Your task to perform on an android device: Go to network settings Image 0: 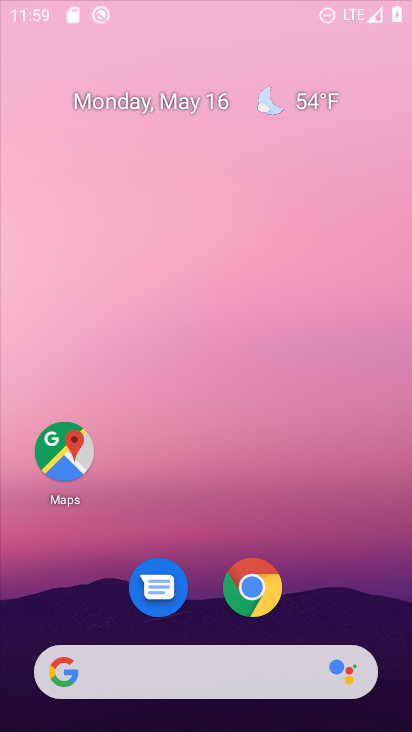
Step 0: click (262, 478)
Your task to perform on an android device: Go to network settings Image 1: 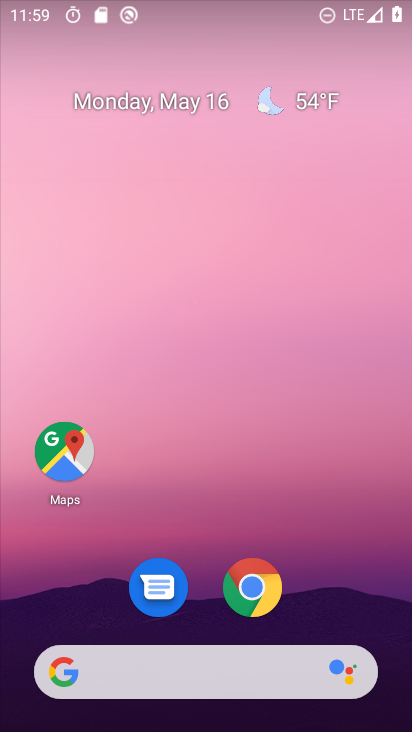
Step 1: drag from (204, 630) to (207, 276)
Your task to perform on an android device: Go to network settings Image 2: 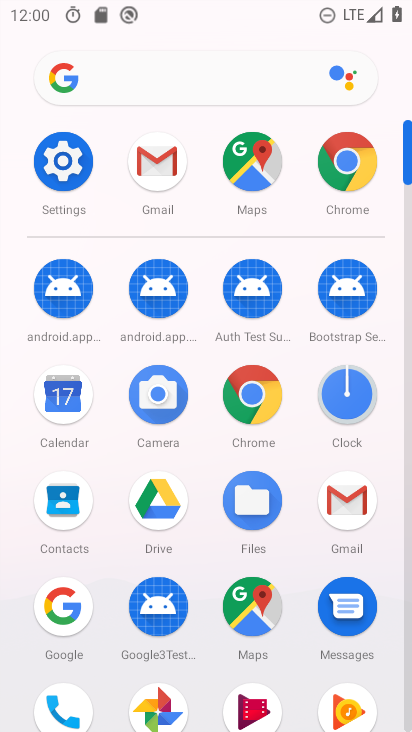
Step 2: drag from (200, 570) to (174, 221)
Your task to perform on an android device: Go to network settings Image 3: 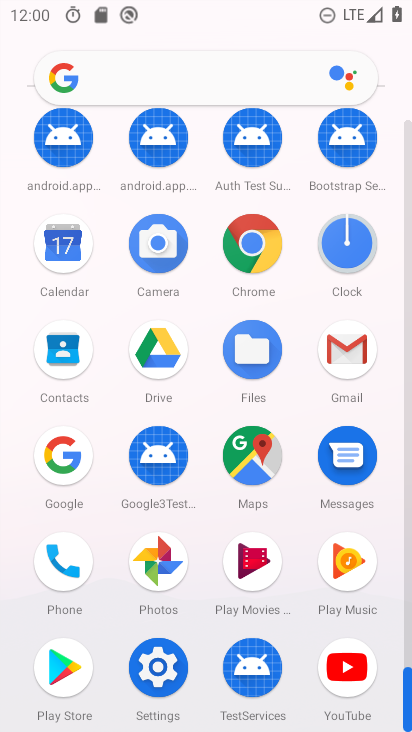
Step 3: click (159, 666)
Your task to perform on an android device: Go to network settings Image 4: 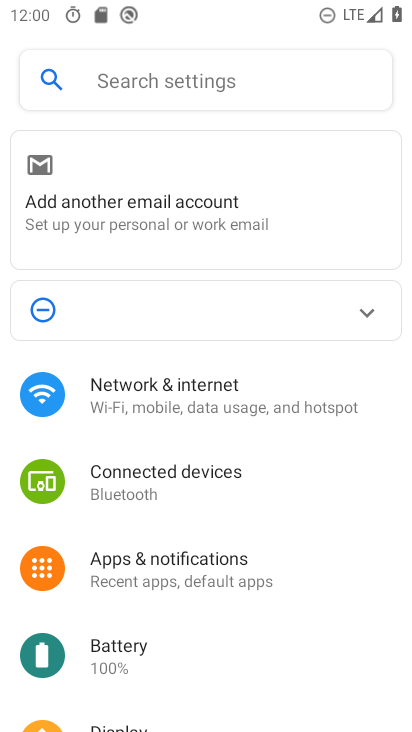
Step 4: click (210, 391)
Your task to perform on an android device: Go to network settings Image 5: 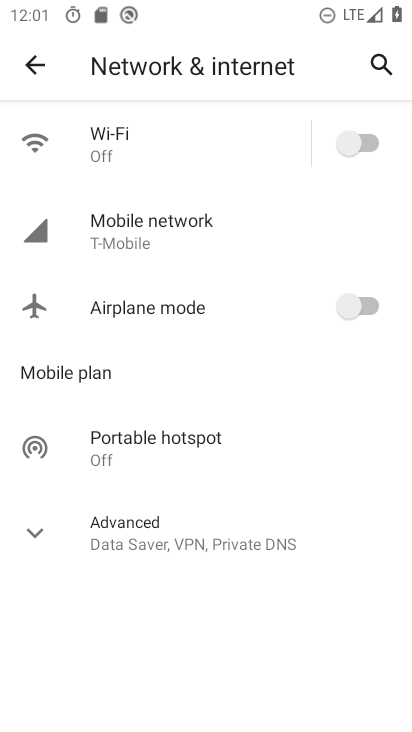
Step 5: click (159, 243)
Your task to perform on an android device: Go to network settings Image 6: 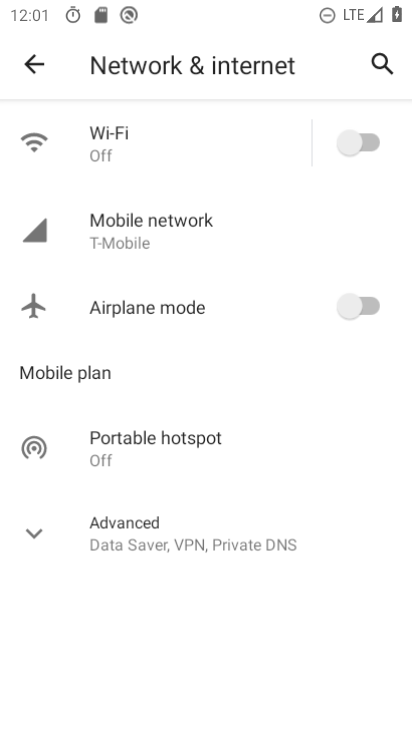
Step 6: task complete